Your task to perform on an android device: Open display settings Image 0: 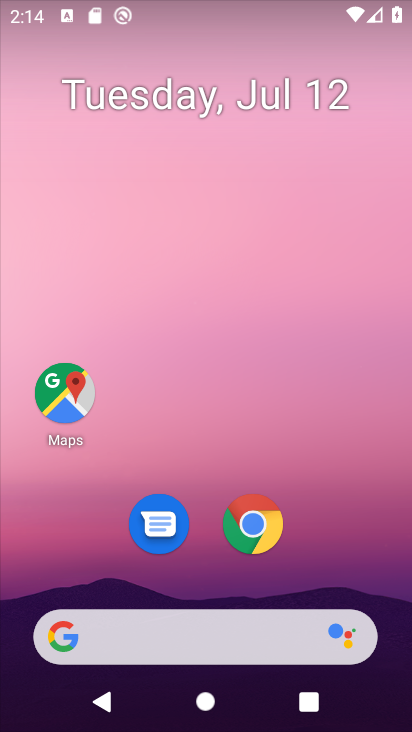
Step 0: drag from (341, 523) to (206, 34)
Your task to perform on an android device: Open display settings Image 1: 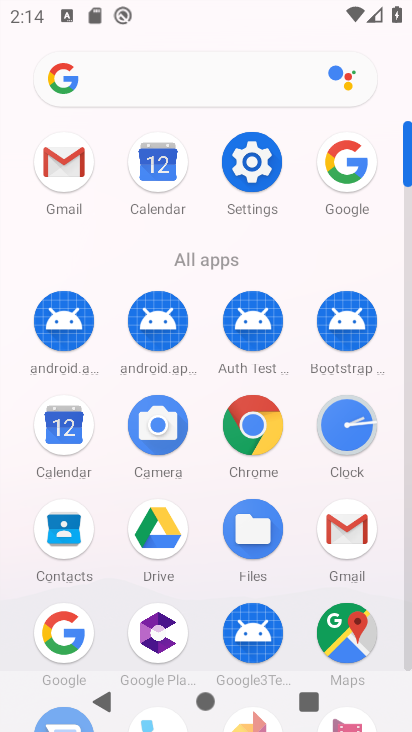
Step 1: click (267, 172)
Your task to perform on an android device: Open display settings Image 2: 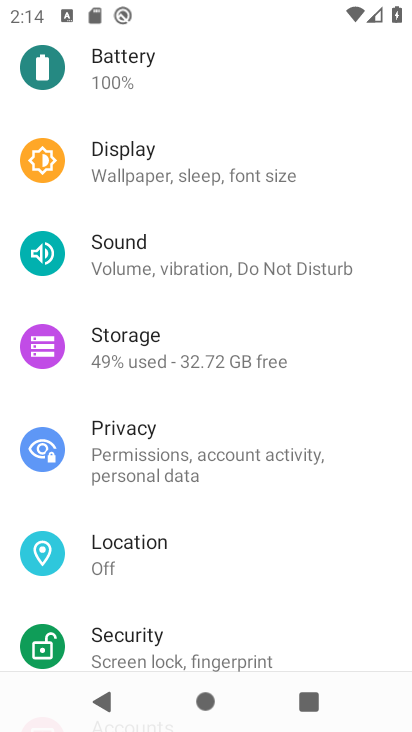
Step 2: click (188, 155)
Your task to perform on an android device: Open display settings Image 3: 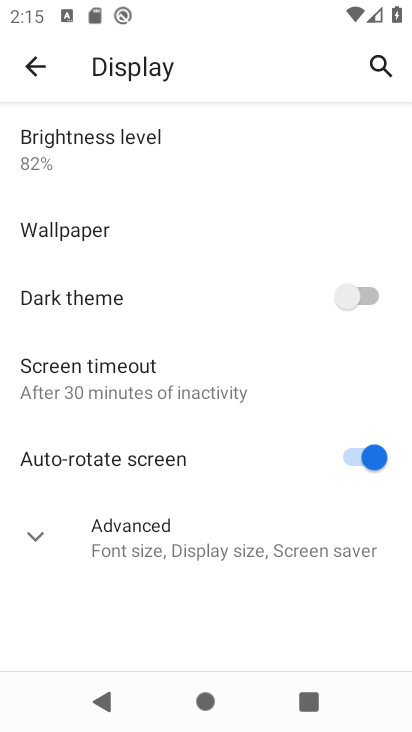
Step 3: task complete